Your task to perform on an android device: turn notification dots on Image 0: 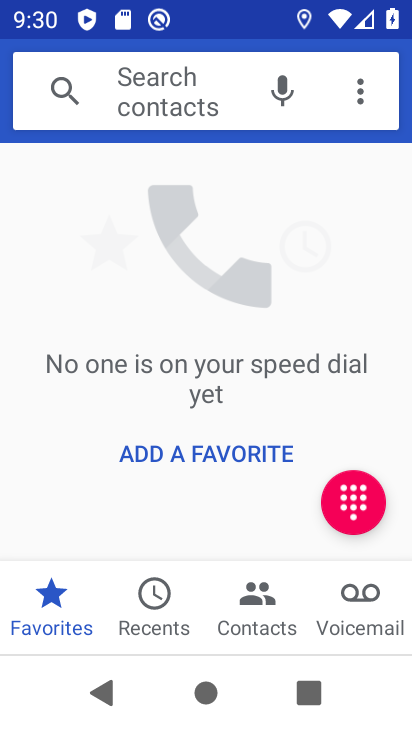
Step 0: press home button
Your task to perform on an android device: turn notification dots on Image 1: 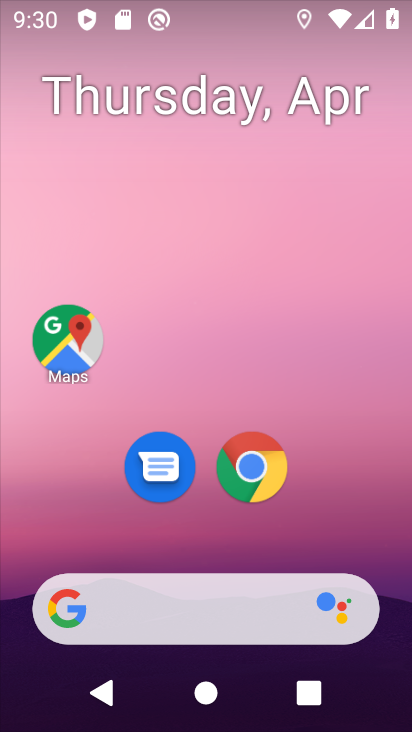
Step 1: drag from (400, 598) to (393, 270)
Your task to perform on an android device: turn notification dots on Image 2: 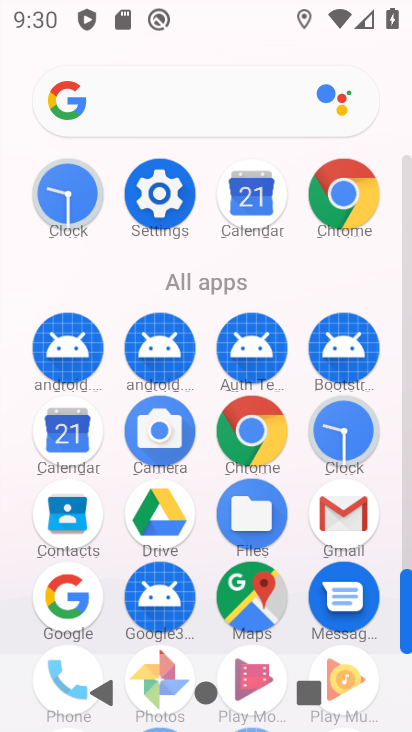
Step 2: click (143, 177)
Your task to perform on an android device: turn notification dots on Image 3: 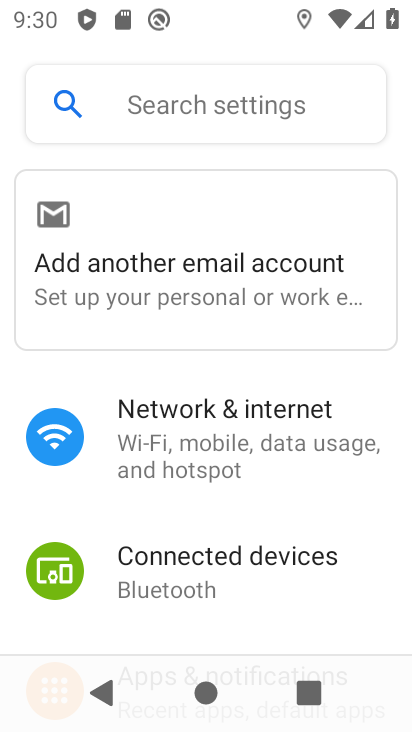
Step 3: drag from (266, 509) to (259, 211)
Your task to perform on an android device: turn notification dots on Image 4: 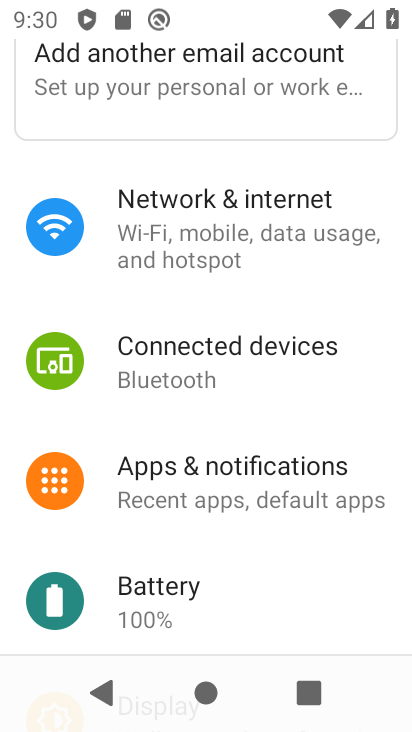
Step 4: click (282, 464)
Your task to perform on an android device: turn notification dots on Image 5: 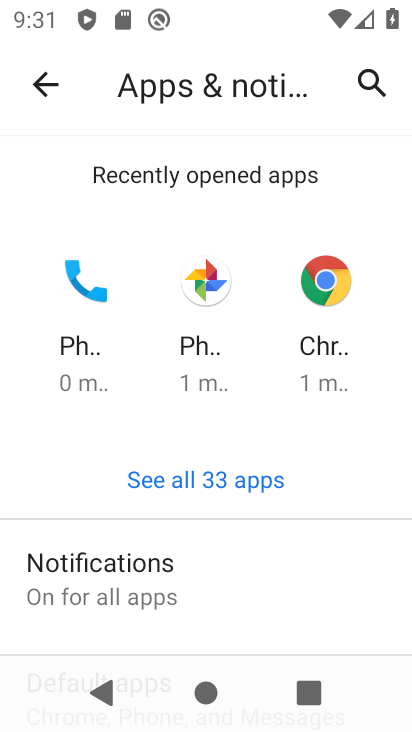
Step 5: drag from (330, 538) to (370, 275)
Your task to perform on an android device: turn notification dots on Image 6: 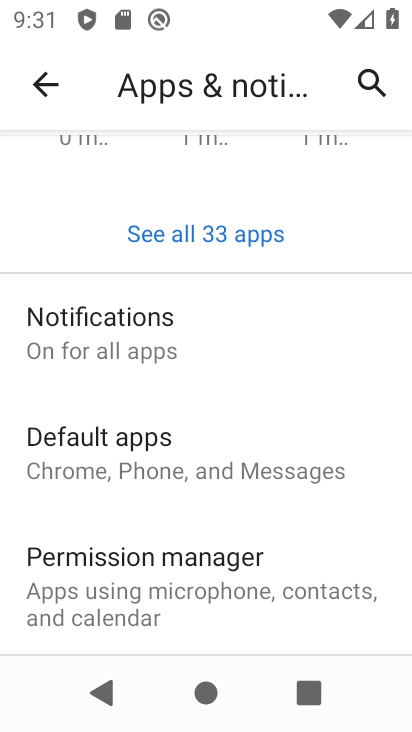
Step 6: click (276, 349)
Your task to perform on an android device: turn notification dots on Image 7: 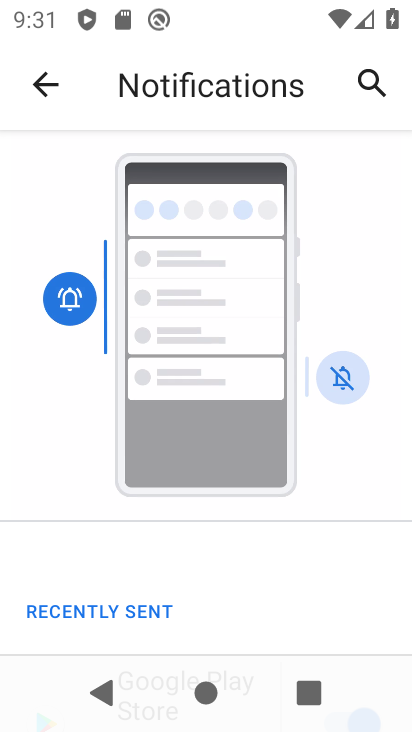
Step 7: drag from (252, 597) to (215, 261)
Your task to perform on an android device: turn notification dots on Image 8: 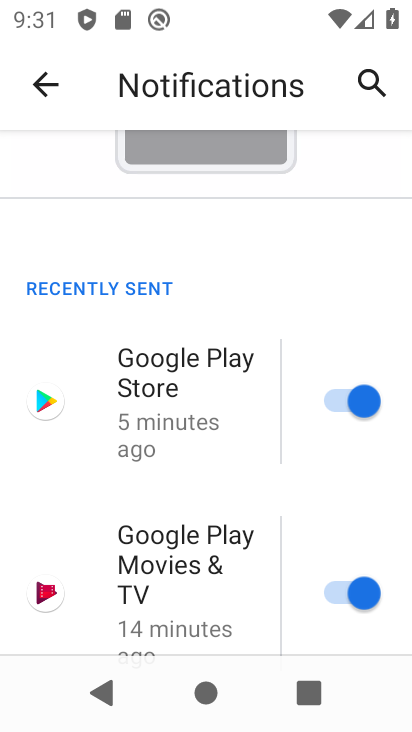
Step 8: drag from (263, 625) to (206, 183)
Your task to perform on an android device: turn notification dots on Image 9: 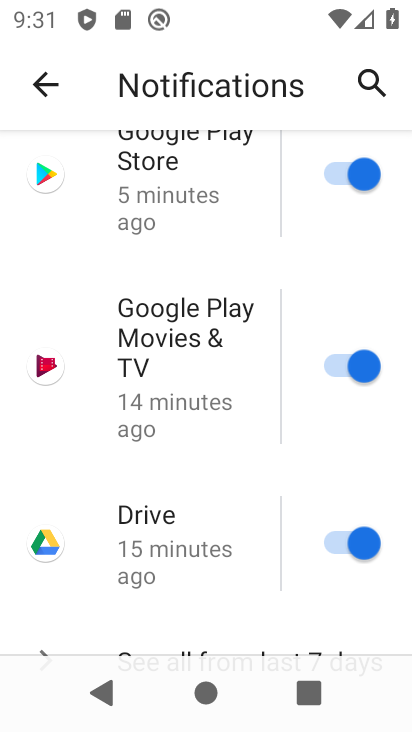
Step 9: drag from (234, 540) to (202, 280)
Your task to perform on an android device: turn notification dots on Image 10: 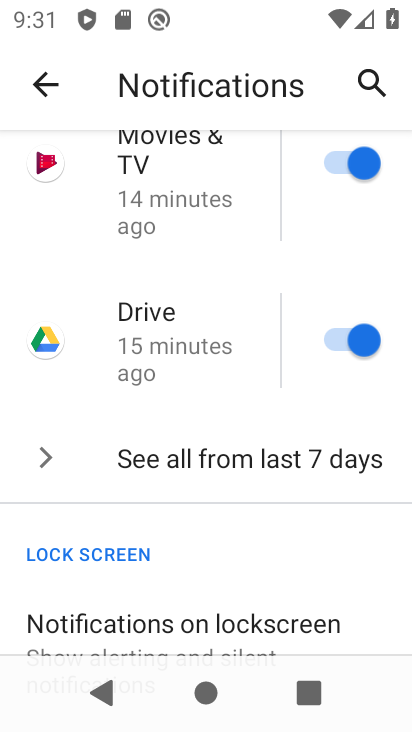
Step 10: drag from (222, 577) to (183, 259)
Your task to perform on an android device: turn notification dots on Image 11: 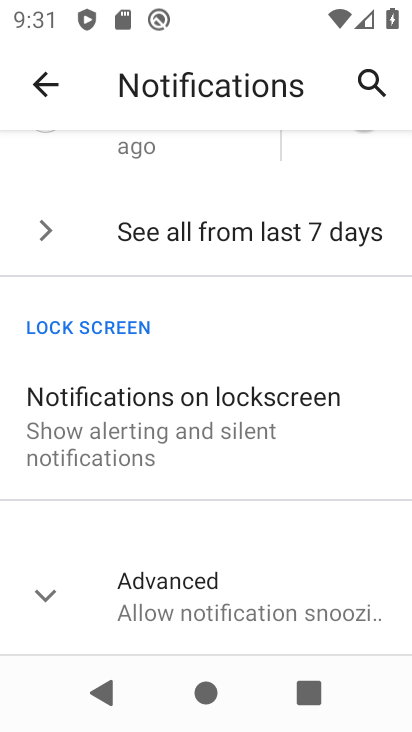
Step 11: click (255, 586)
Your task to perform on an android device: turn notification dots on Image 12: 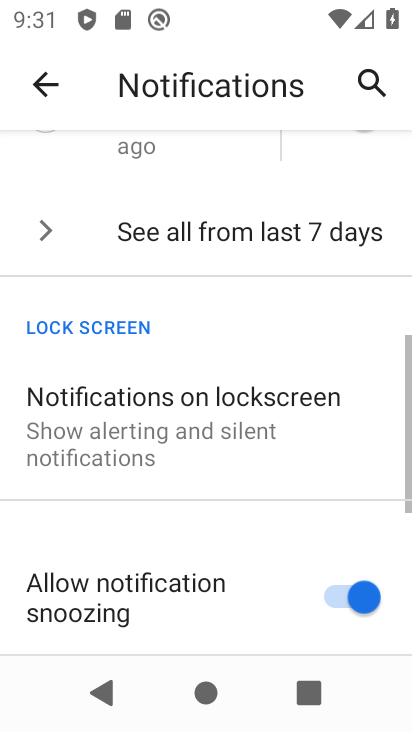
Step 12: drag from (255, 586) to (178, 125)
Your task to perform on an android device: turn notification dots on Image 13: 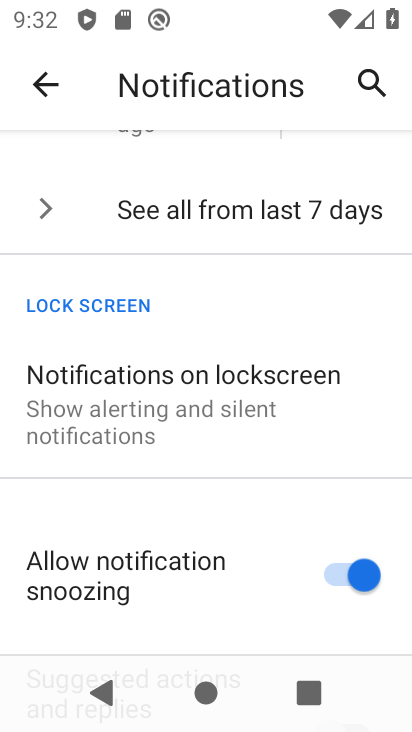
Step 13: drag from (266, 550) to (245, 147)
Your task to perform on an android device: turn notification dots on Image 14: 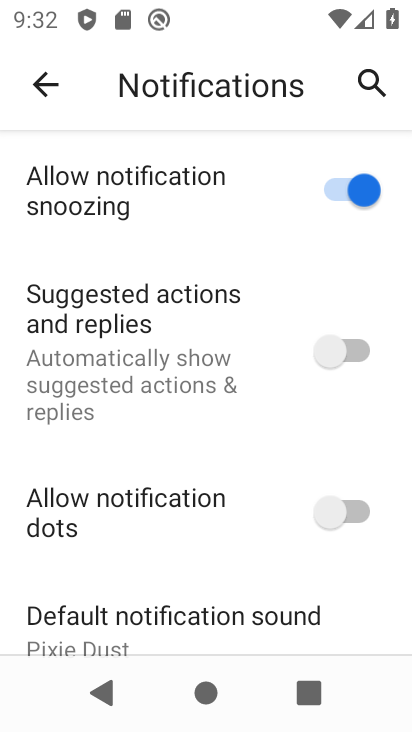
Step 14: click (345, 516)
Your task to perform on an android device: turn notification dots on Image 15: 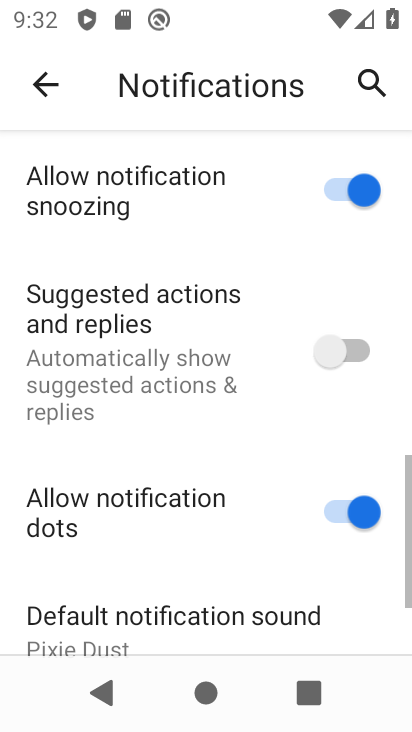
Step 15: task complete